Your task to perform on an android device: toggle airplane mode Image 0: 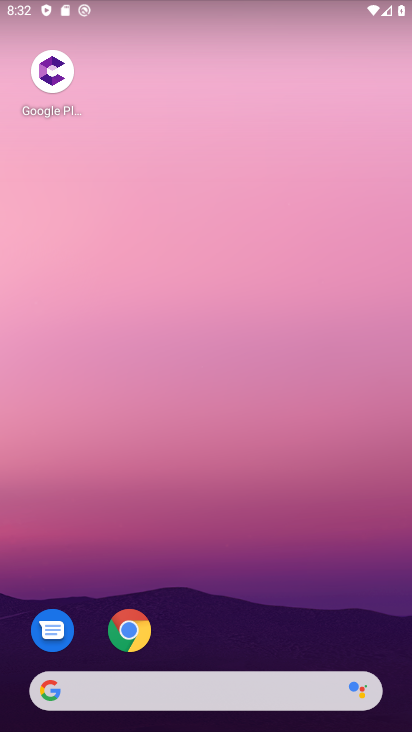
Step 0: drag from (387, 525) to (345, 199)
Your task to perform on an android device: toggle airplane mode Image 1: 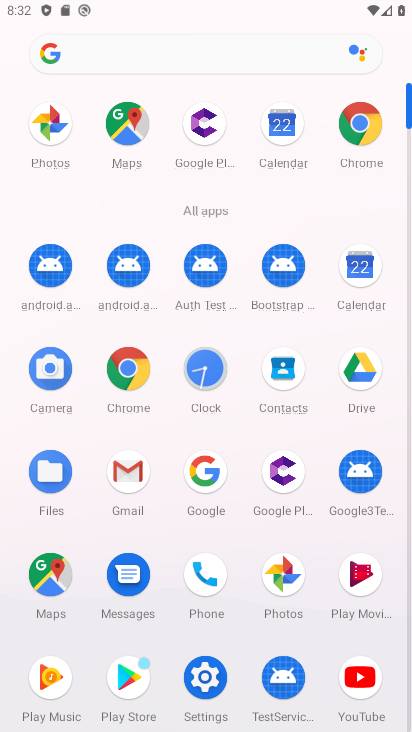
Step 1: click (197, 690)
Your task to perform on an android device: toggle airplane mode Image 2: 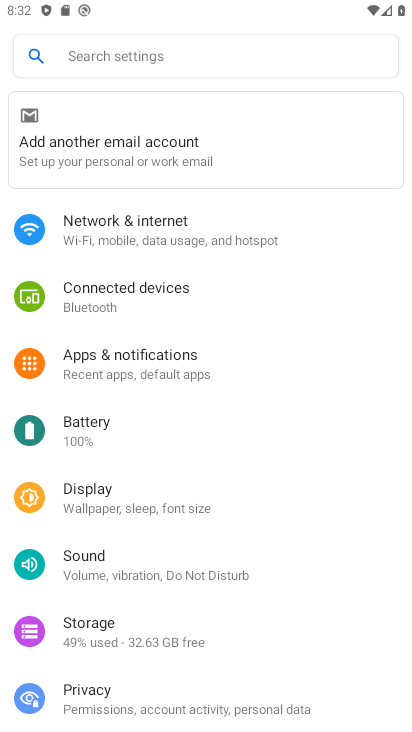
Step 2: drag from (365, 679) to (290, 302)
Your task to perform on an android device: toggle airplane mode Image 3: 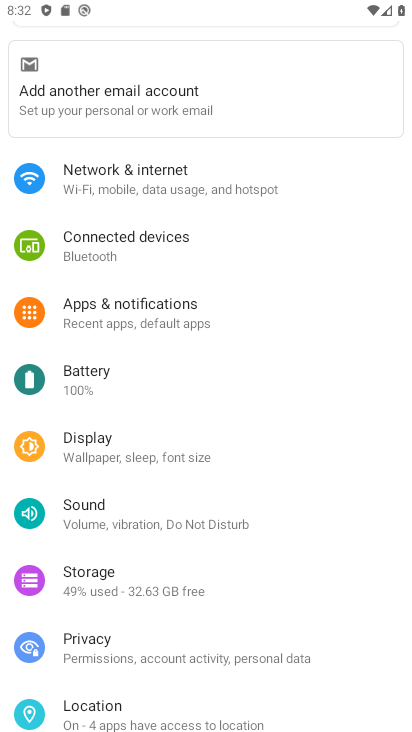
Step 3: drag from (340, 192) to (370, 495)
Your task to perform on an android device: toggle airplane mode Image 4: 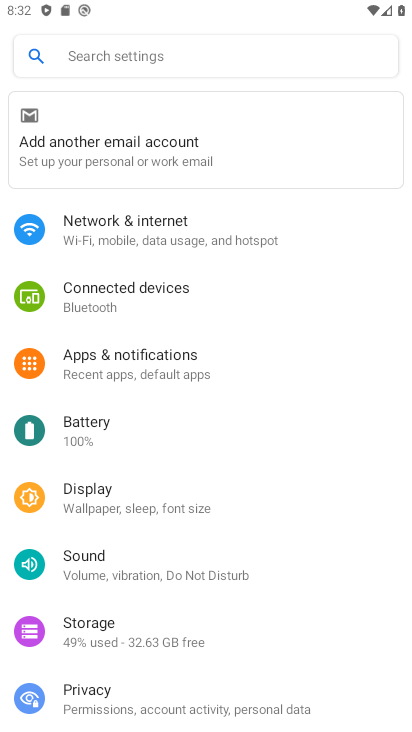
Step 4: click (134, 229)
Your task to perform on an android device: toggle airplane mode Image 5: 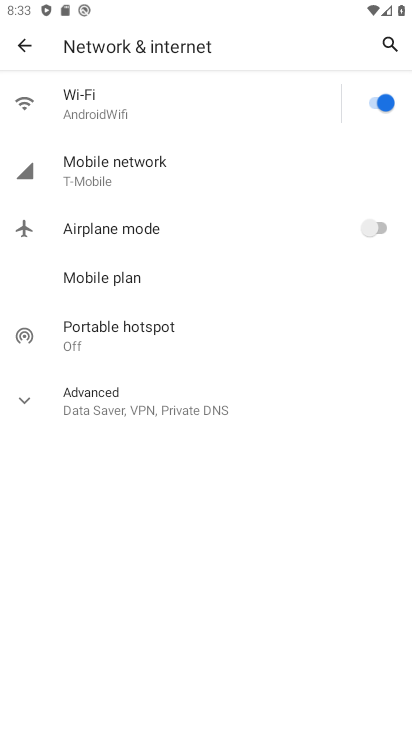
Step 5: click (379, 226)
Your task to perform on an android device: toggle airplane mode Image 6: 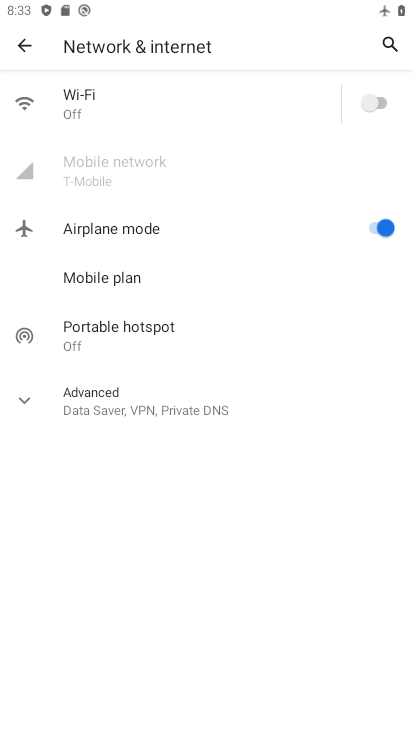
Step 6: task complete